Your task to perform on an android device: Go to eBay Image 0: 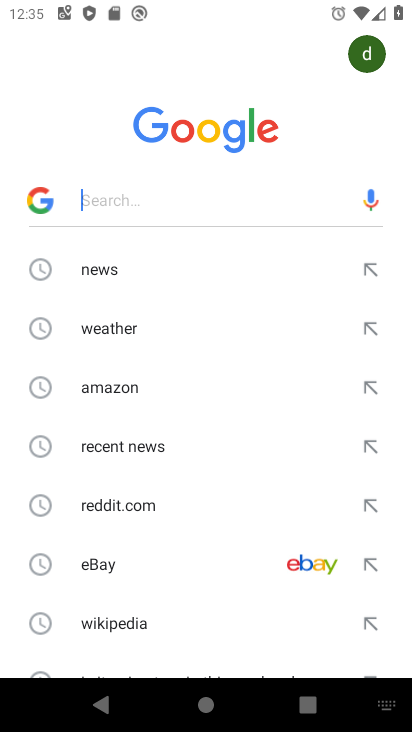
Step 0: press home button
Your task to perform on an android device: Go to eBay Image 1: 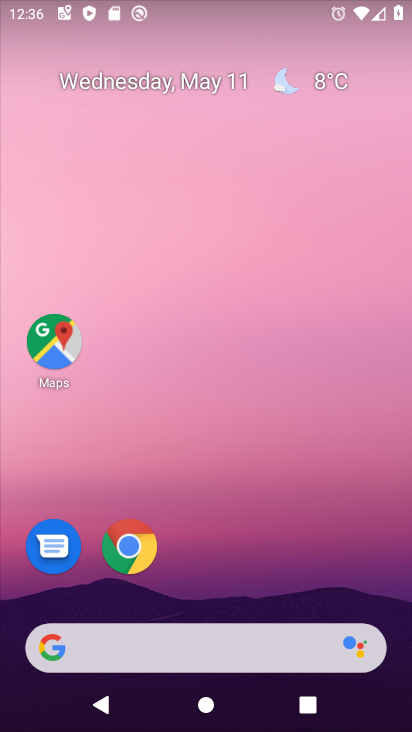
Step 1: drag from (198, 641) to (284, 374)
Your task to perform on an android device: Go to eBay Image 2: 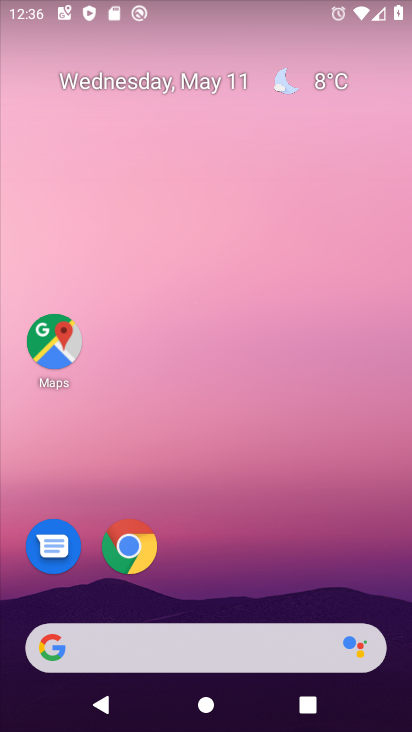
Step 2: drag from (224, 659) to (342, 148)
Your task to perform on an android device: Go to eBay Image 3: 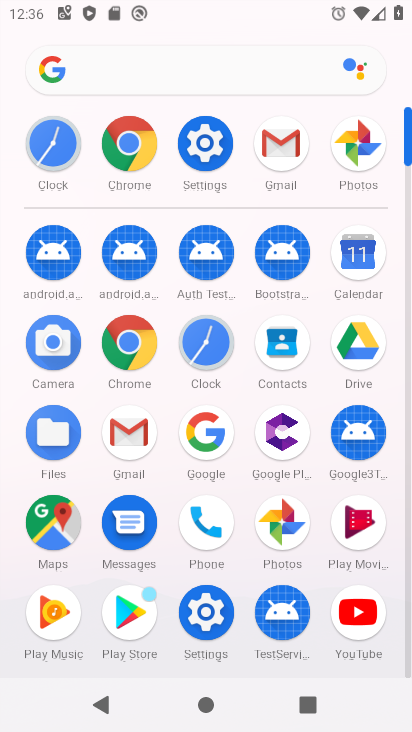
Step 3: click (141, 155)
Your task to perform on an android device: Go to eBay Image 4: 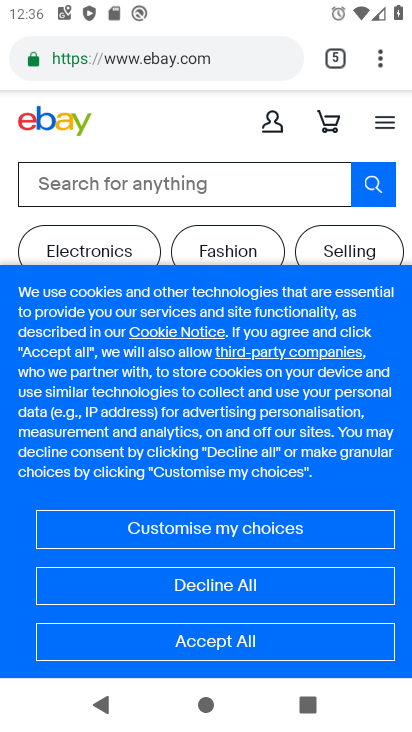
Step 4: click (381, 66)
Your task to perform on an android device: Go to eBay Image 5: 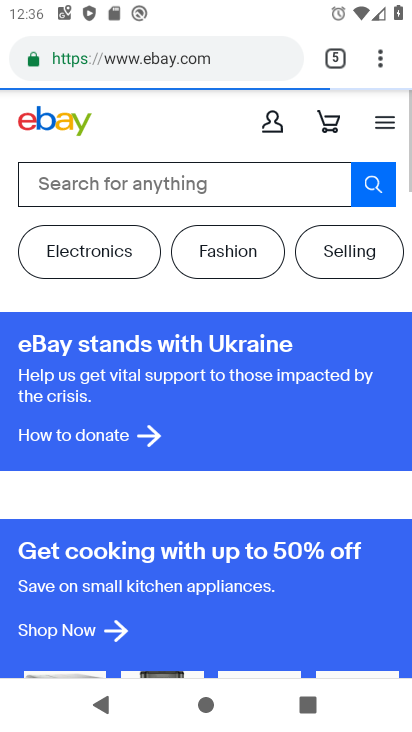
Step 5: drag from (381, 66) to (204, 113)
Your task to perform on an android device: Go to eBay Image 6: 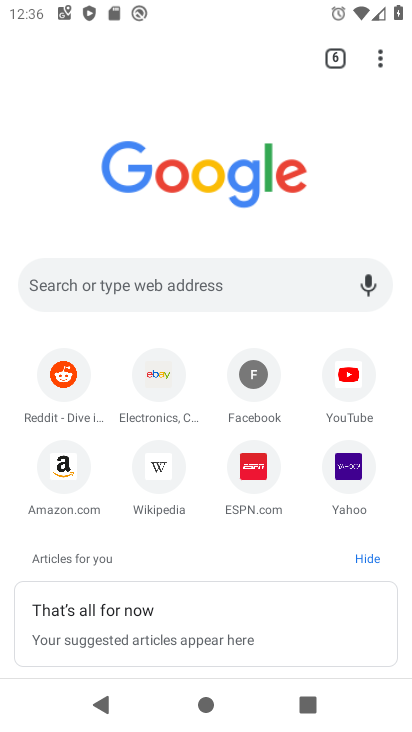
Step 6: click (160, 383)
Your task to perform on an android device: Go to eBay Image 7: 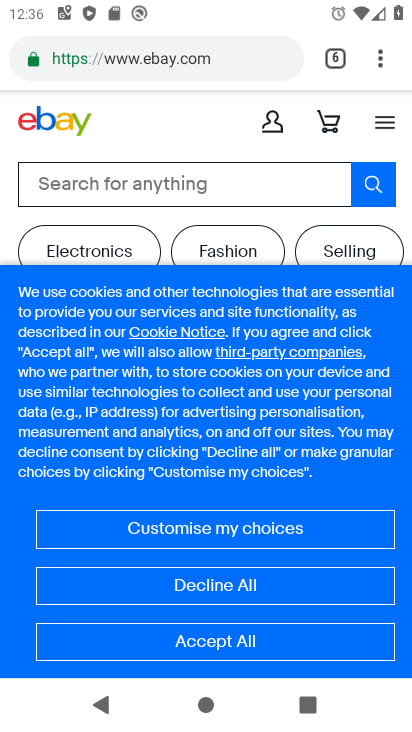
Step 7: task complete